Your task to perform on an android device: turn on improve location accuracy Image 0: 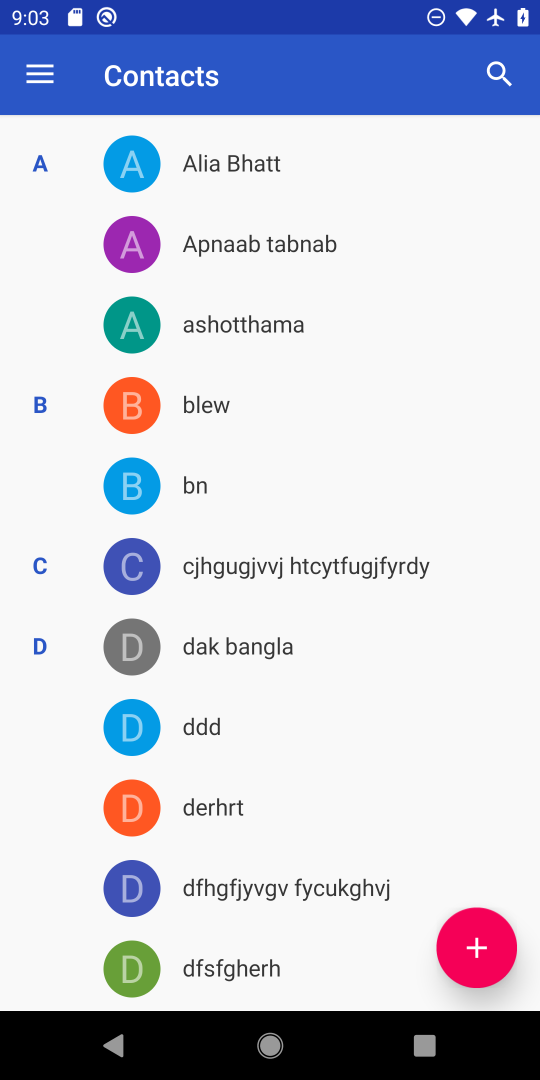
Step 0: press home button
Your task to perform on an android device: turn on improve location accuracy Image 1: 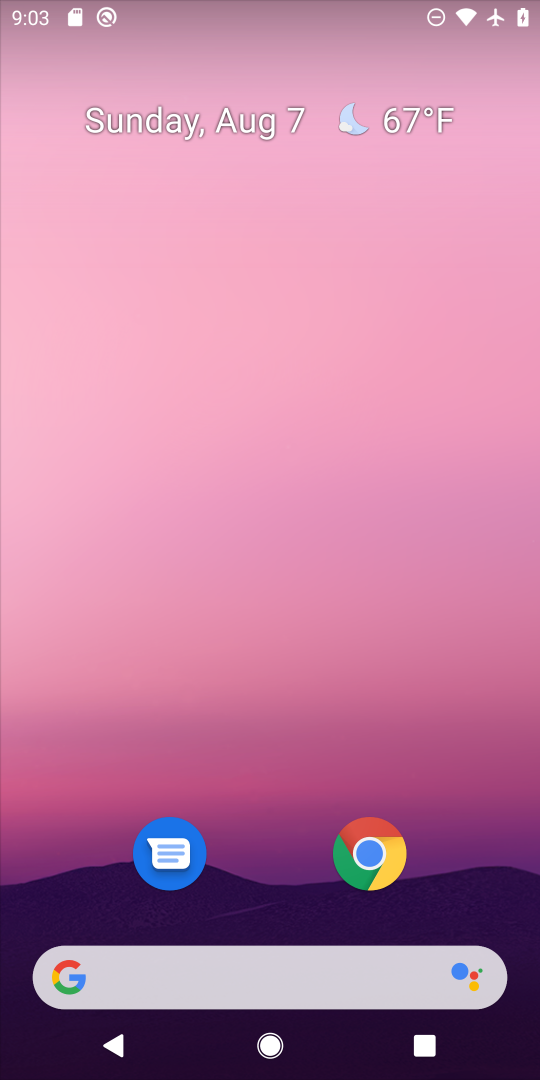
Step 1: drag from (281, 850) to (349, 143)
Your task to perform on an android device: turn on improve location accuracy Image 2: 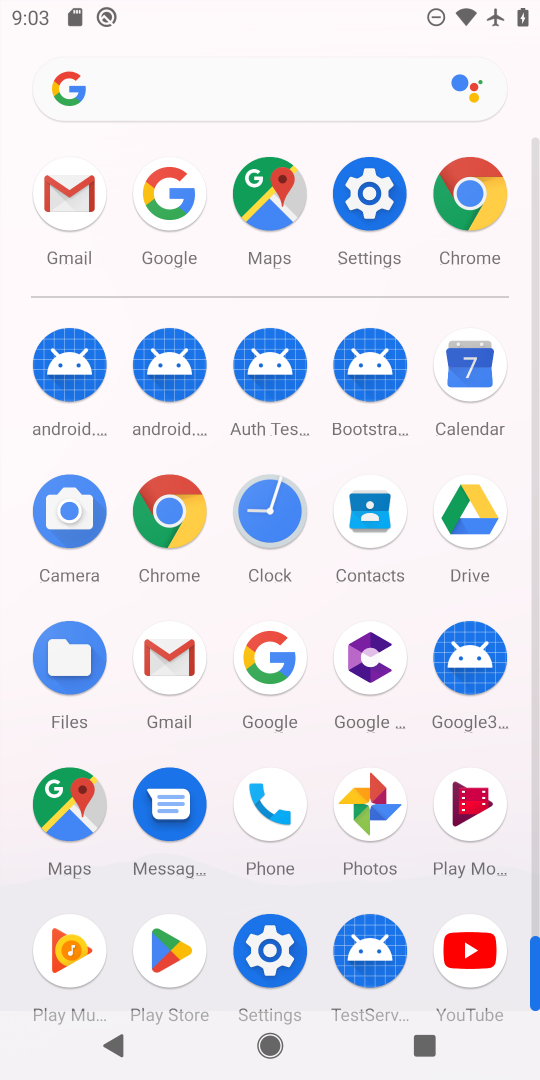
Step 2: click (384, 233)
Your task to perform on an android device: turn on improve location accuracy Image 3: 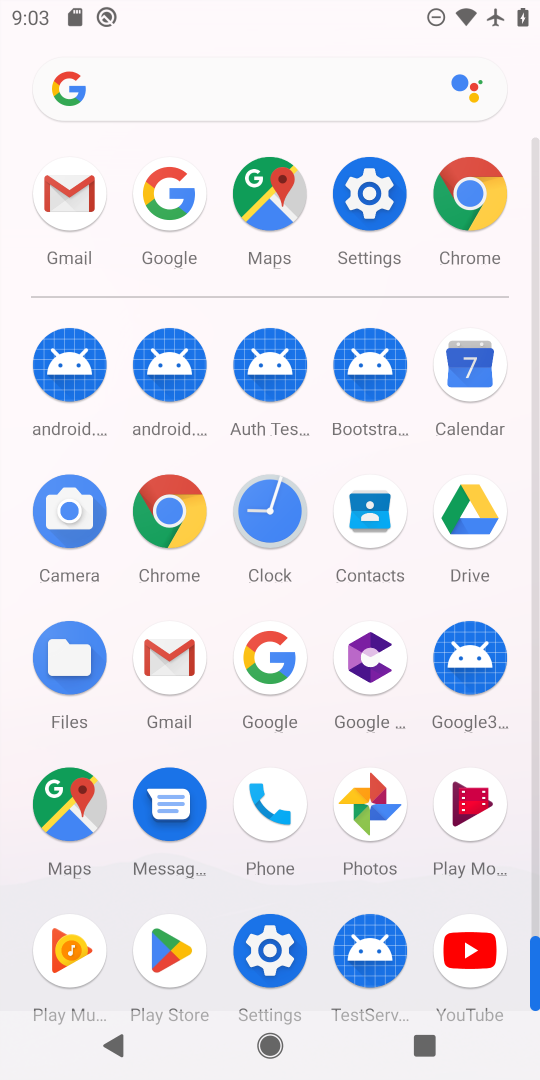
Step 3: click (367, 214)
Your task to perform on an android device: turn on improve location accuracy Image 4: 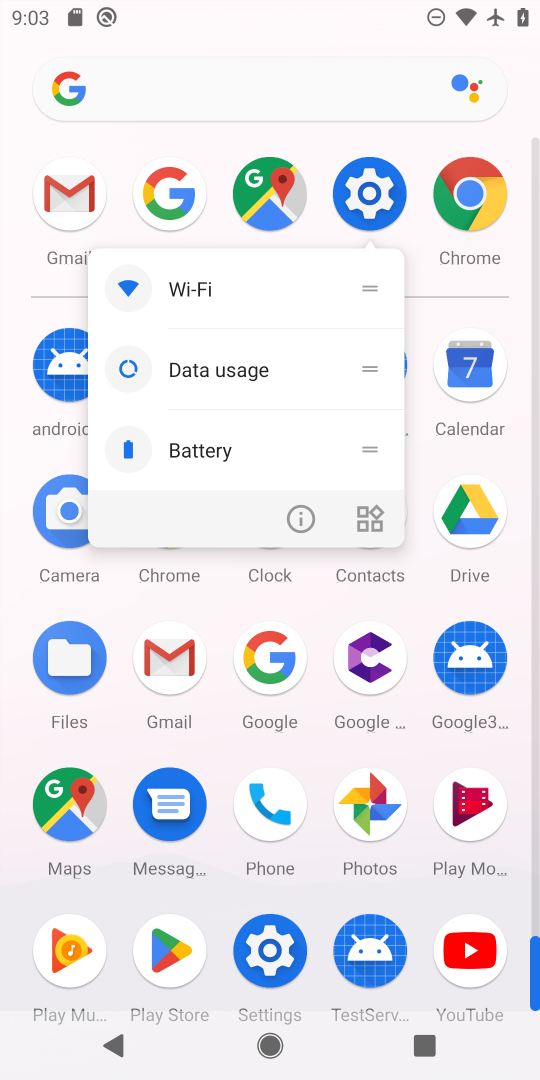
Step 4: click (369, 212)
Your task to perform on an android device: turn on improve location accuracy Image 5: 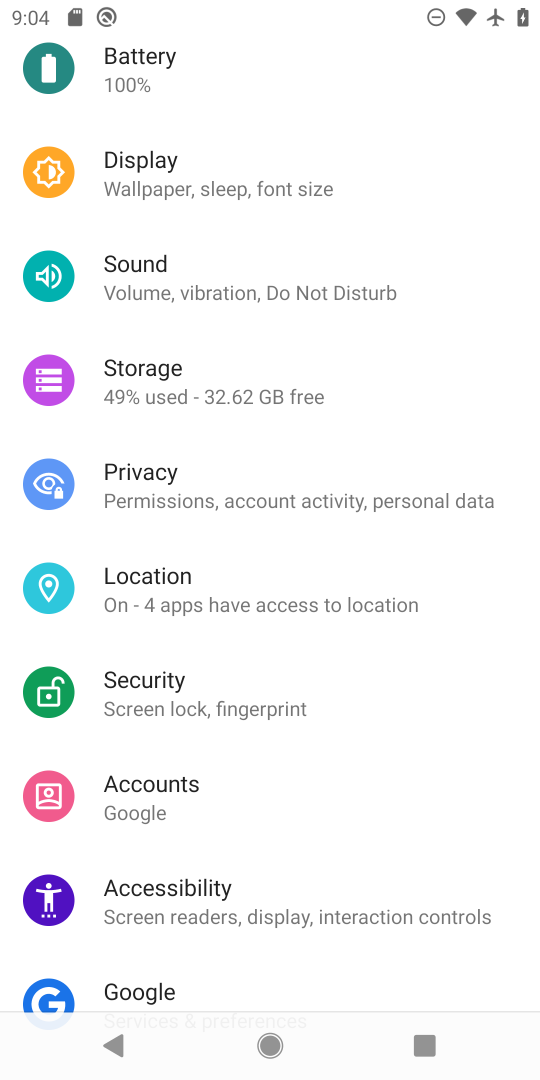
Step 5: click (143, 594)
Your task to perform on an android device: turn on improve location accuracy Image 6: 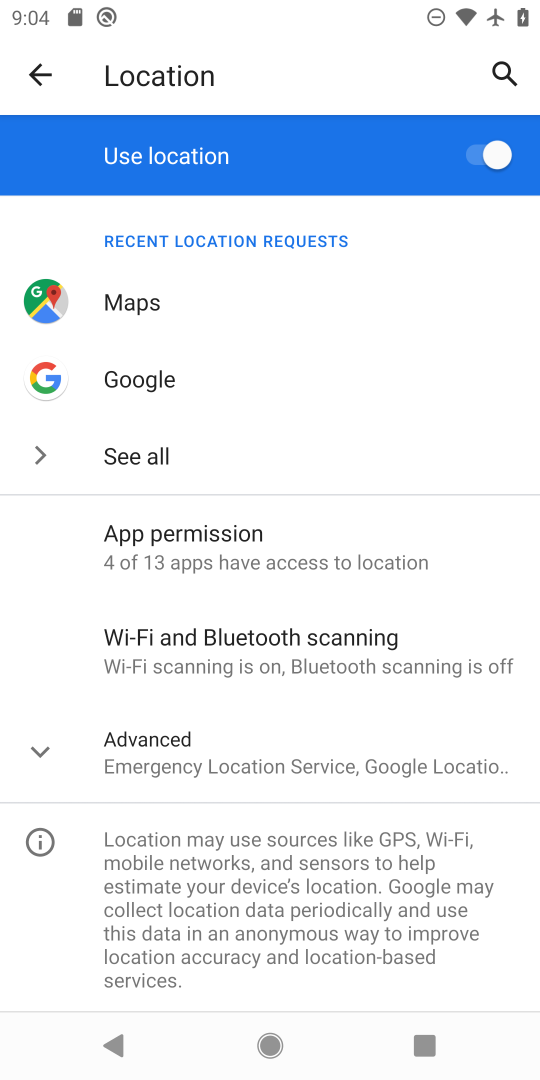
Step 6: click (216, 766)
Your task to perform on an android device: turn on improve location accuracy Image 7: 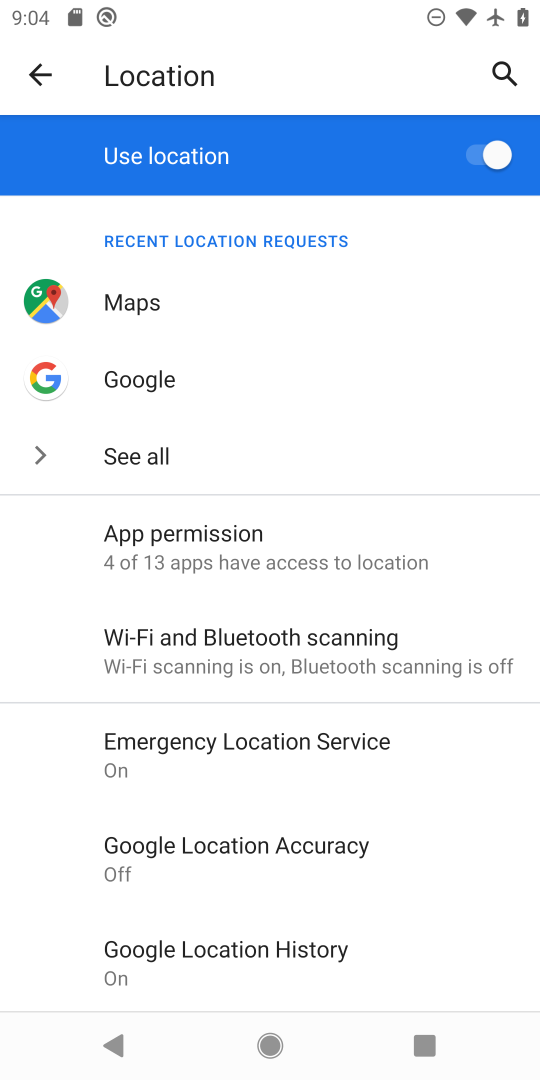
Step 7: click (306, 847)
Your task to perform on an android device: turn on improve location accuracy Image 8: 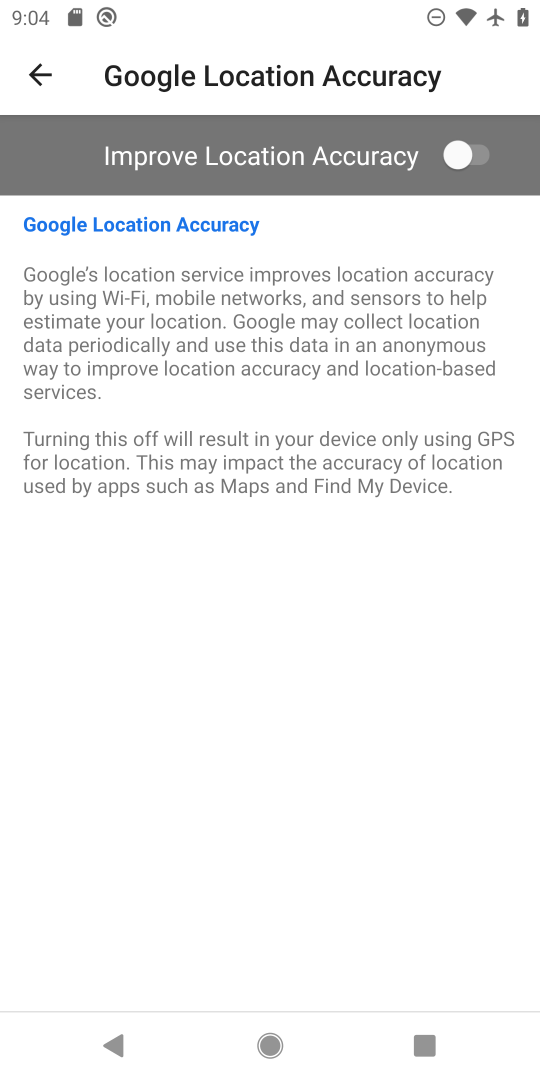
Step 8: click (397, 145)
Your task to perform on an android device: turn on improve location accuracy Image 9: 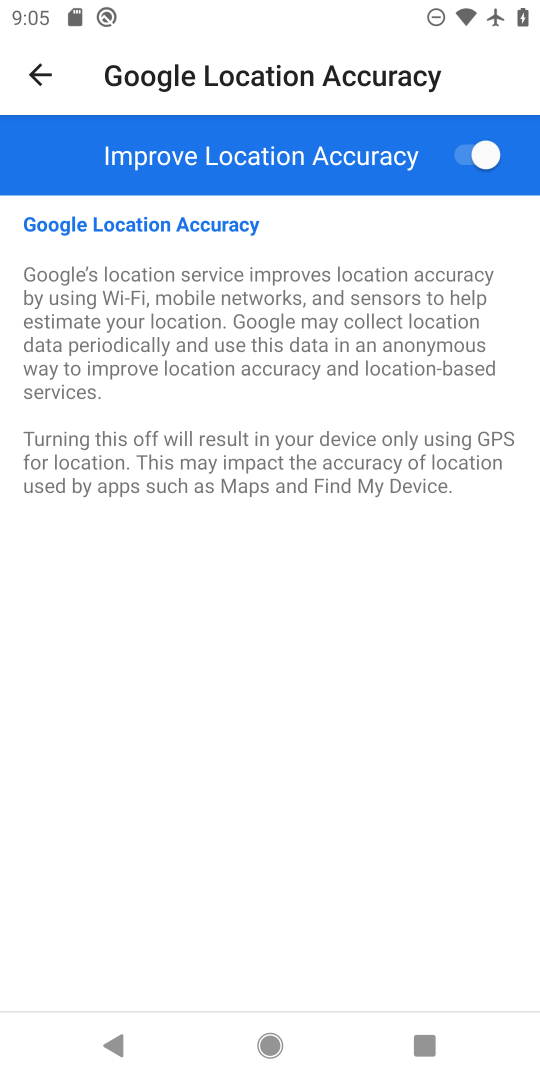
Step 9: task complete